Your task to perform on an android device: Go to settings Image 0: 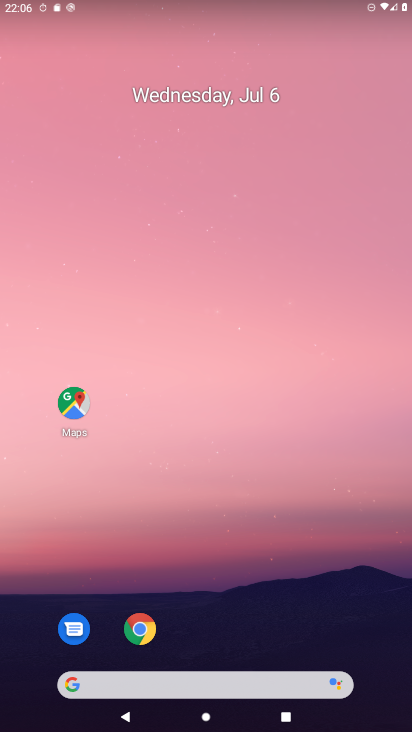
Step 0: drag from (217, 731) to (220, 231)
Your task to perform on an android device: Go to settings Image 1: 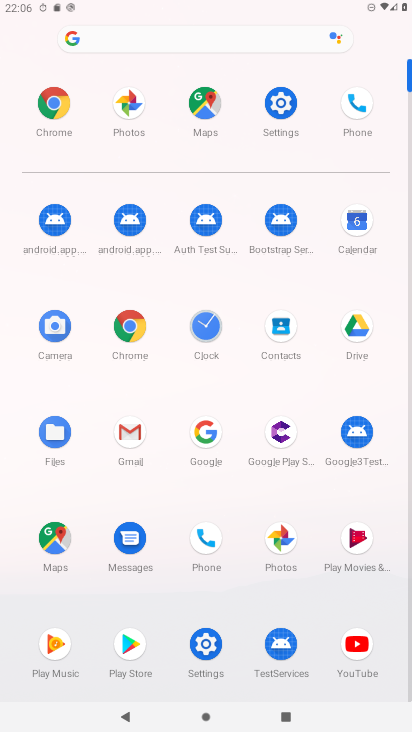
Step 1: click (284, 103)
Your task to perform on an android device: Go to settings Image 2: 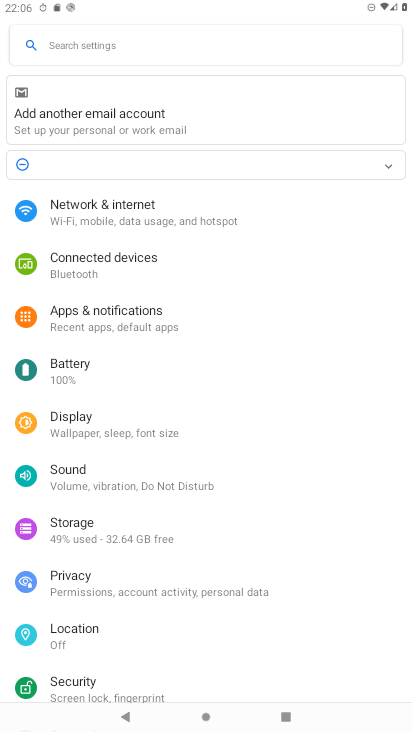
Step 2: task complete